Your task to perform on an android device: Search for sushi restaurants on Maps Image 0: 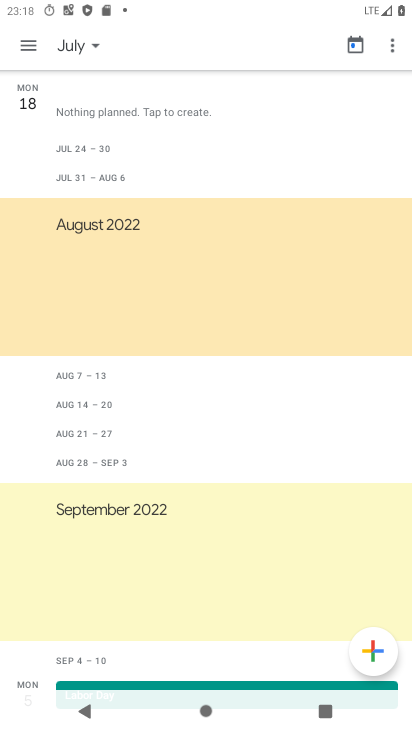
Step 0: press home button
Your task to perform on an android device: Search for sushi restaurants on Maps Image 1: 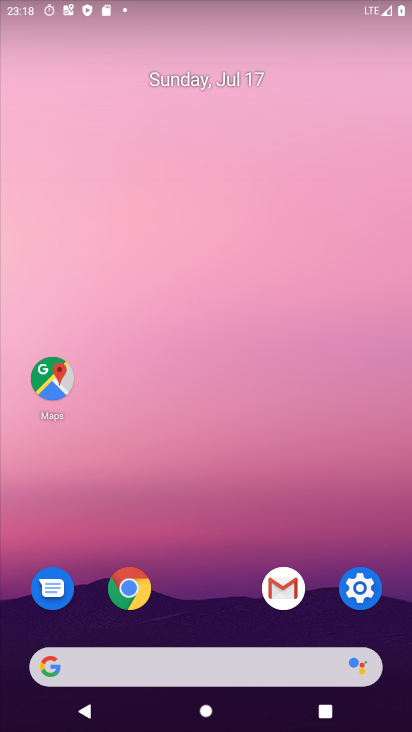
Step 1: click (54, 377)
Your task to perform on an android device: Search for sushi restaurants on Maps Image 2: 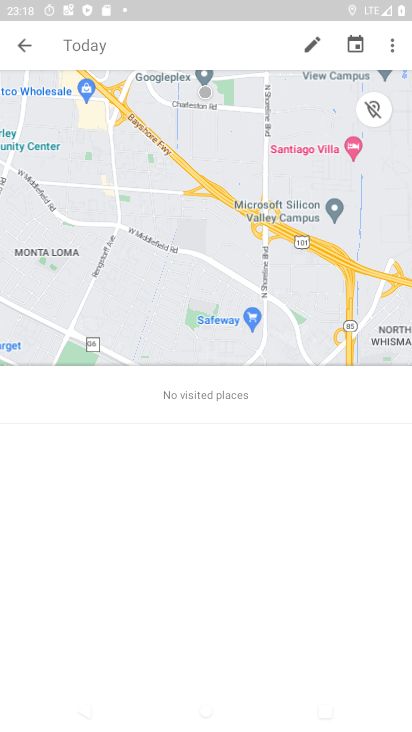
Step 2: click (12, 46)
Your task to perform on an android device: Search for sushi restaurants on Maps Image 3: 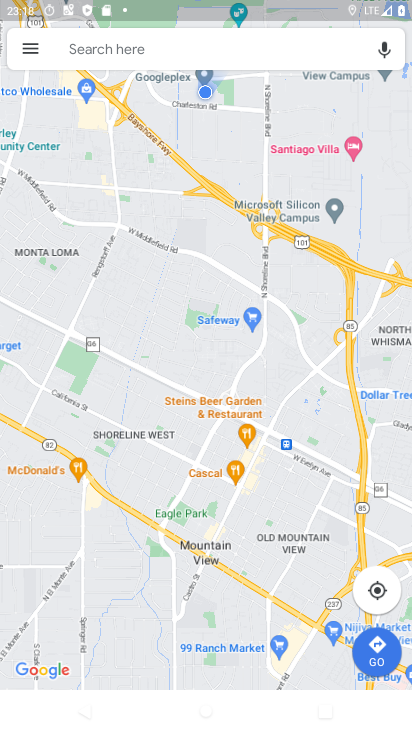
Step 3: click (134, 52)
Your task to perform on an android device: Search for sushi restaurants on Maps Image 4: 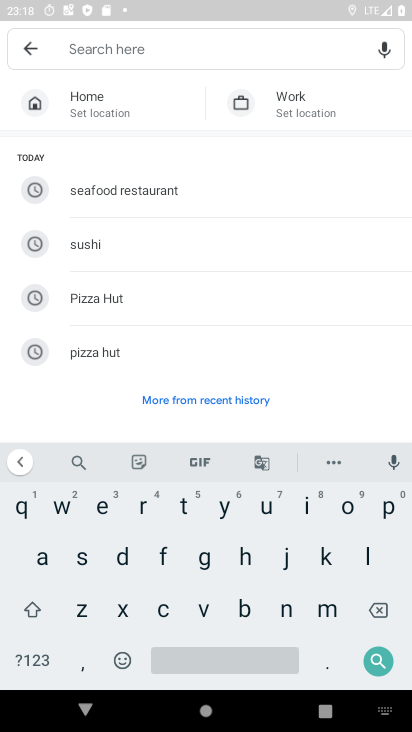
Step 4: click (148, 238)
Your task to perform on an android device: Search for sushi restaurants on Maps Image 5: 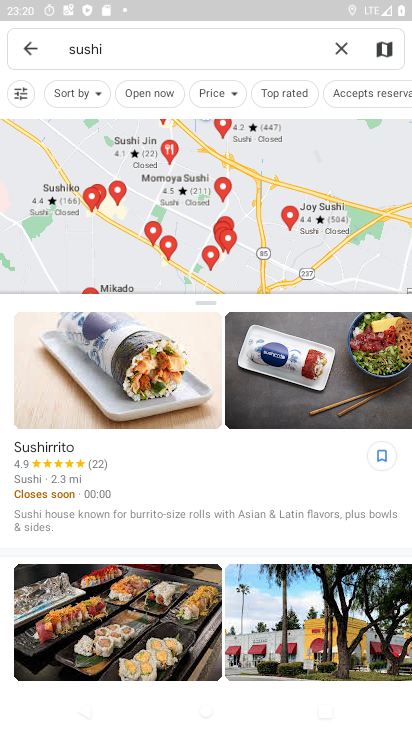
Step 5: task complete